Your task to perform on an android device: Turn off the flashlight Image 0: 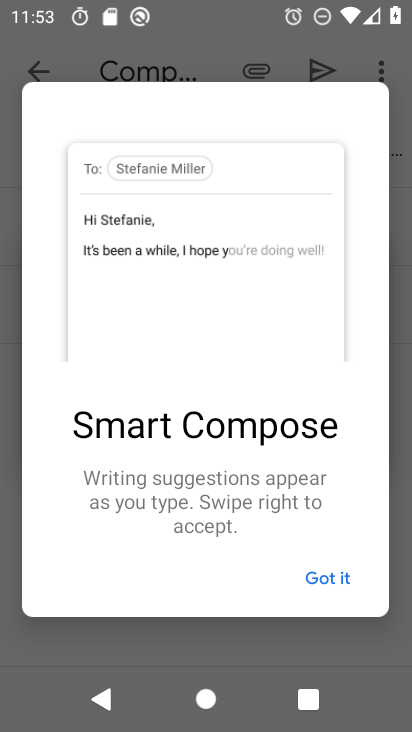
Step 0: press home button
Your task to perform on an android device: Turn off the flashlight Image 1: 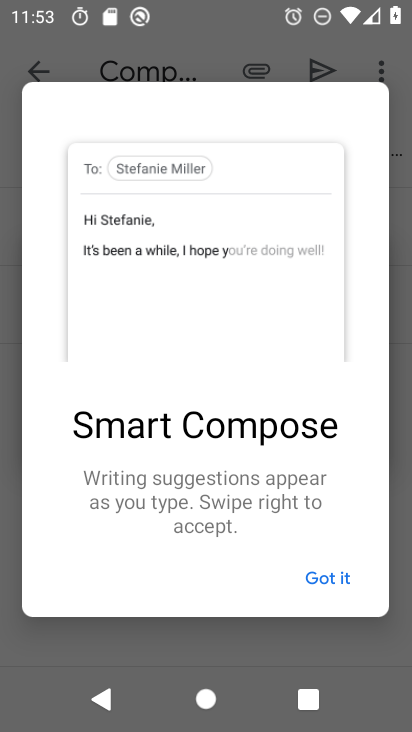
Step 1: press home button
Your task to perform on an android device: Turn off the flashlight Image 2: 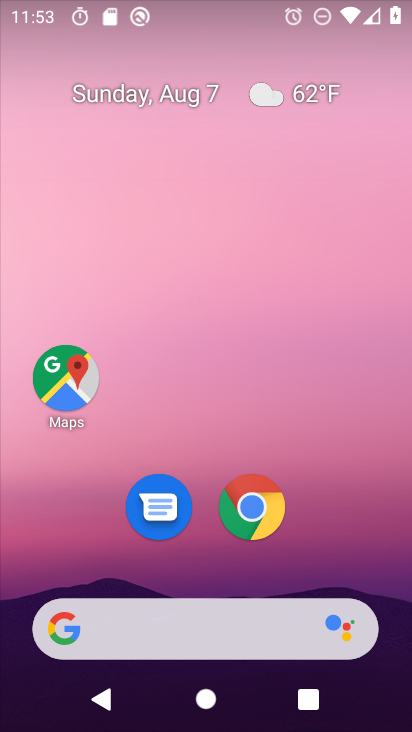
Step 2: click (375, 15)
Your task to perform on an android device: Turn off the flashlight Image 3: 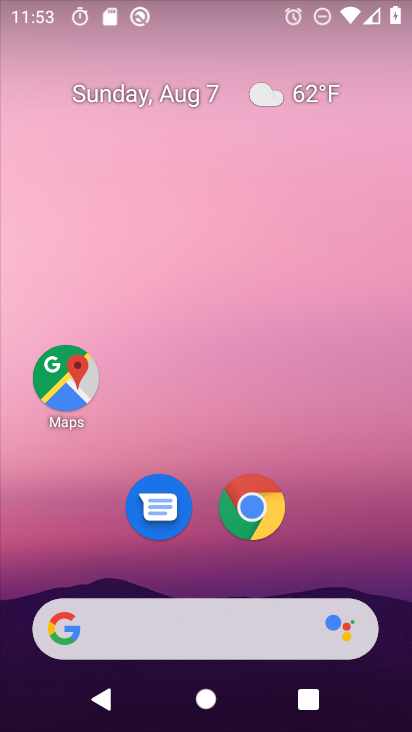
Step 3: drag from (348, 562) to (367, 68)
Your task to perform on an android device: Turn off the flashlight Image 4: 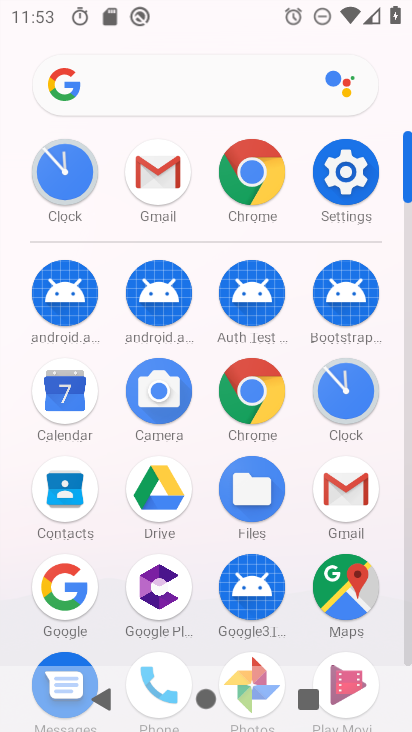
Step 4: click (354, 165)
Your task to perform on an android device: Turn off the flashlight Image 5: 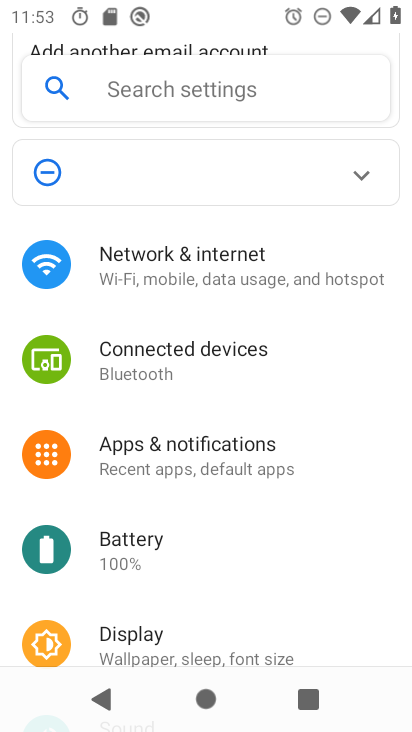
Step 5: drag from (220, 604) to (264, 232)
Your task to perform on an android device: Turn off the flashlight Image 6: 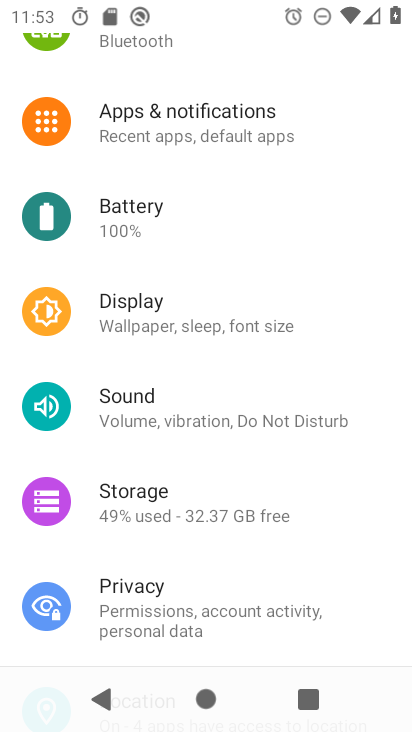
Step 6: click (166, 320)
Your task to perform on an android device: Turn off the flashlight Image 7: 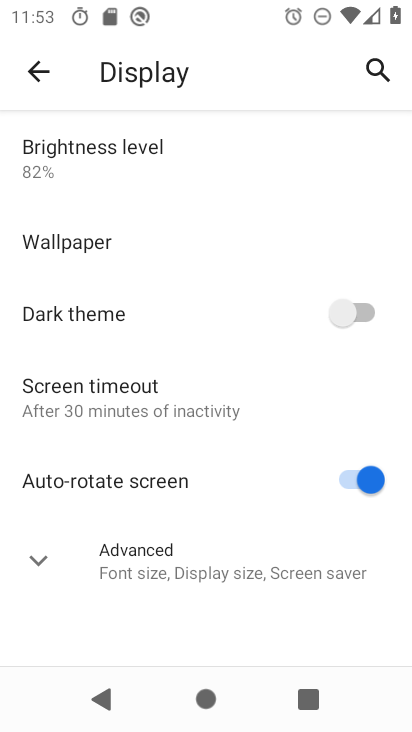
Step 7: click (180, 395)
Your task to perform on an android device: Turn off the flashlight Image 8: 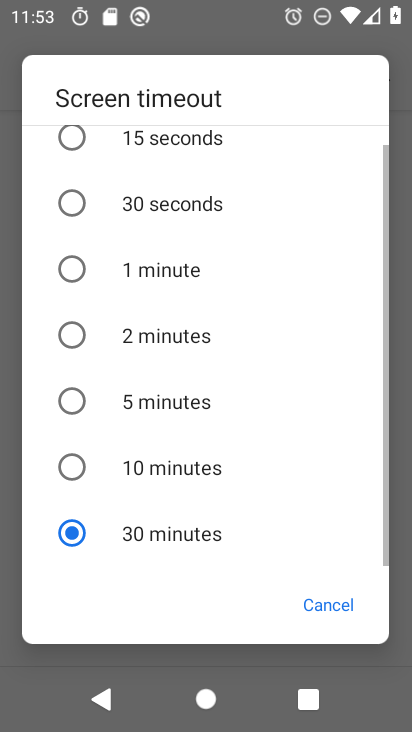
Step 8: task complete